Your task to perform on an android device: Is it going to rain tomorrow? Image 0: 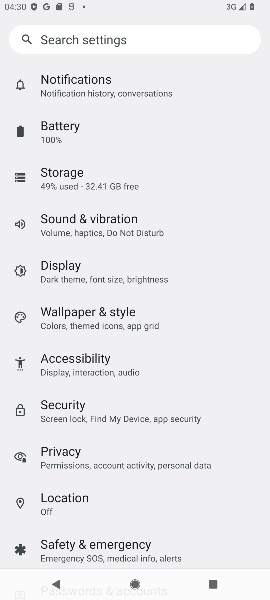
Step 0: press home button
Your task to perform on an android device: Is it going to rain tomorrow? Image 1: 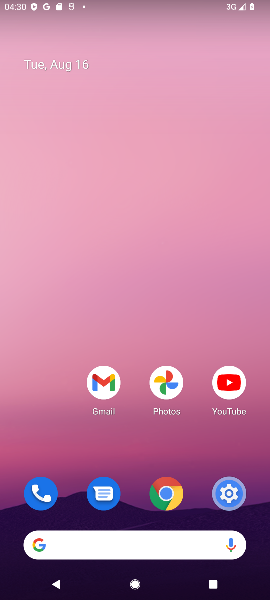
Step 1: click (168, 550)
Your task to perform on an android device: Is it going to rain tomorrow? Image 2: 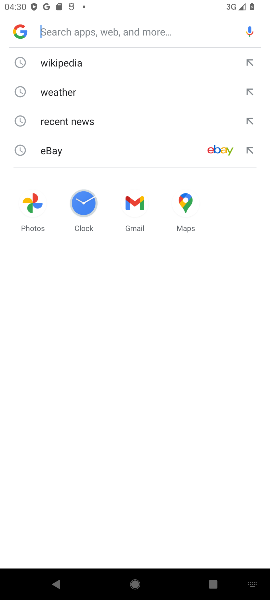
Step 2: click (71, 91)
Your task to perform on an android device: Is it going to rain tomorrow? Image 3: 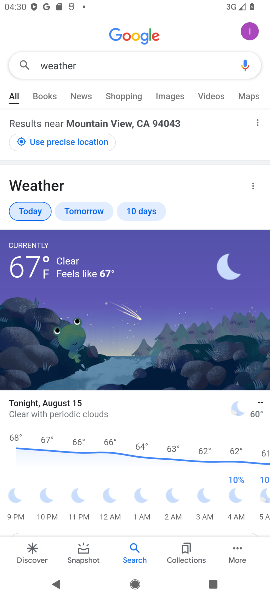
Step 3: click (78, 210)
Your task to perform on an android device: Is it going to rain tomorrow? Image 4: 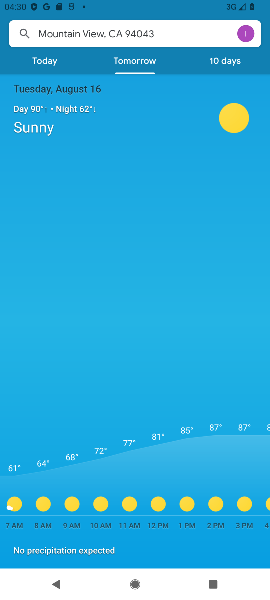
Step 4: task complete